Your task to perform on an android device: Go to network settings Image 0: 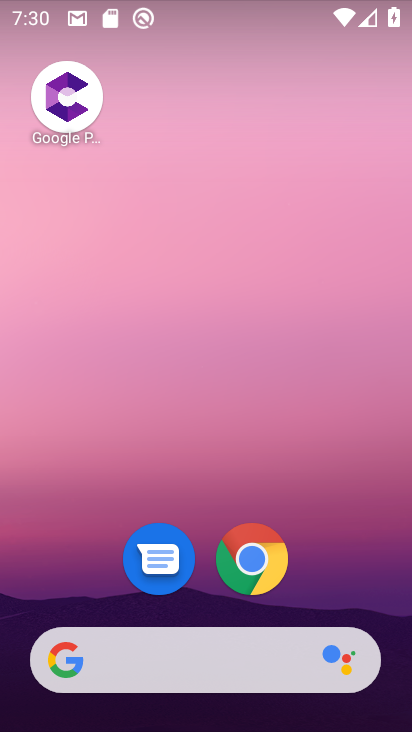
Step 0: drag from (379, 601) to (376, 248)
Your task to perform on an android device: Go to network settings Image 1: 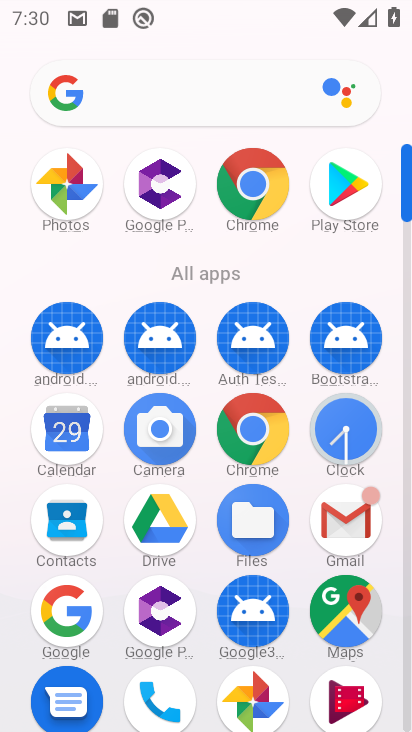
Step 1: drag from (395, 491) to (388, 221)
Your task to perform on an android device: Go to network settings Image 2: 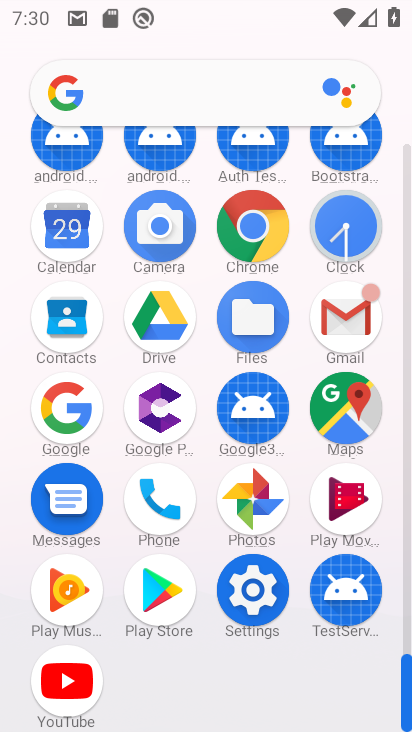
Step 2: click (260, 609)
Your task to perform on an android device: Go to network settings Image 3: 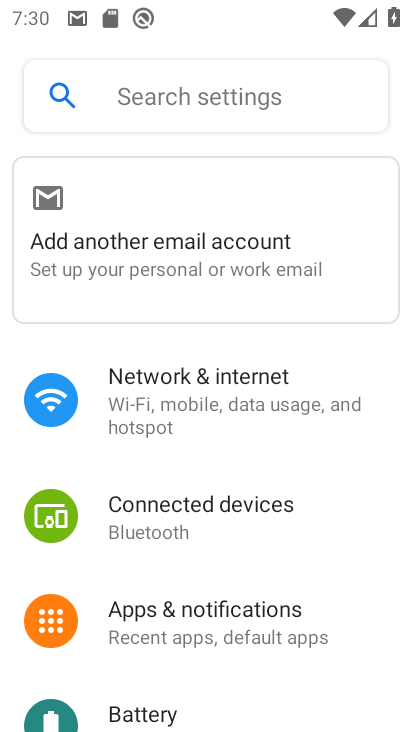
Step 3: drag from (376, 626) to (378, 502)
Your task to perform on an android device: Go to network settings Image 4: 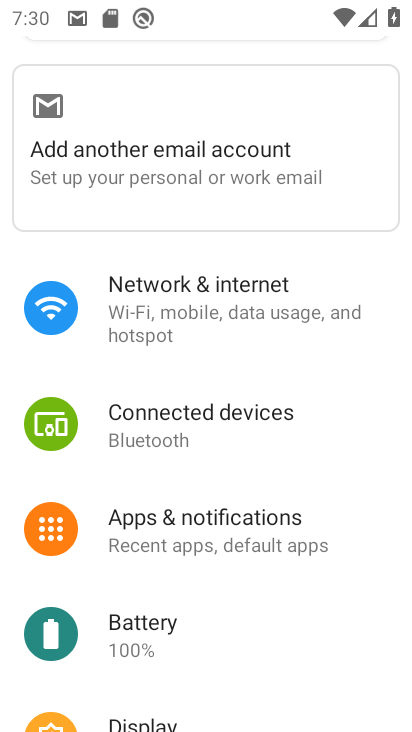
Step 4: drag from (374, 611) to (362, 495)
Your task to perform on an android device: Go to network settings Image 5: 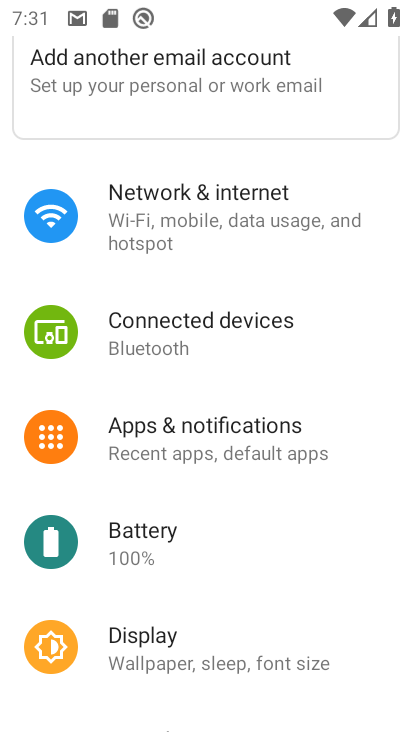
Step 5: drag from (378, 606) to (383, 496)
Your task to perform on an android device: Go to network settings Image 6: 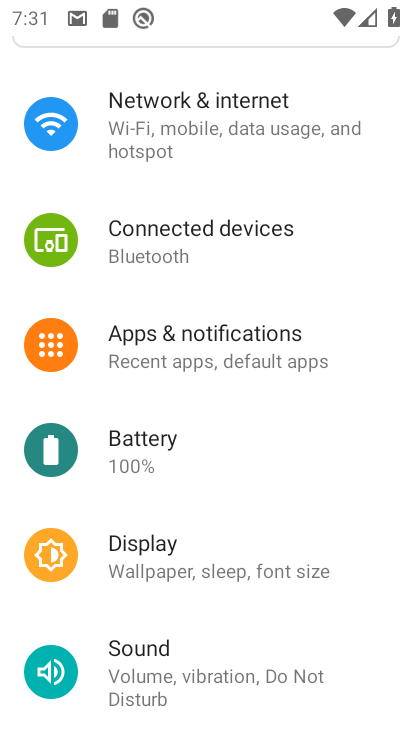
Step 6: drag from (373, 623) to (372, 534)
Your task to perform on an android device: Go to network settings Image 7: 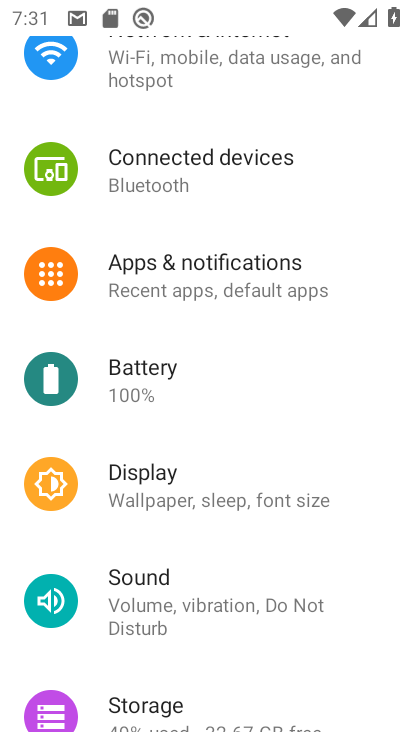
Step 7: drag from (362, 623) to (371, 515)
Your task to perform on an android device: Go to network settings Image 8: 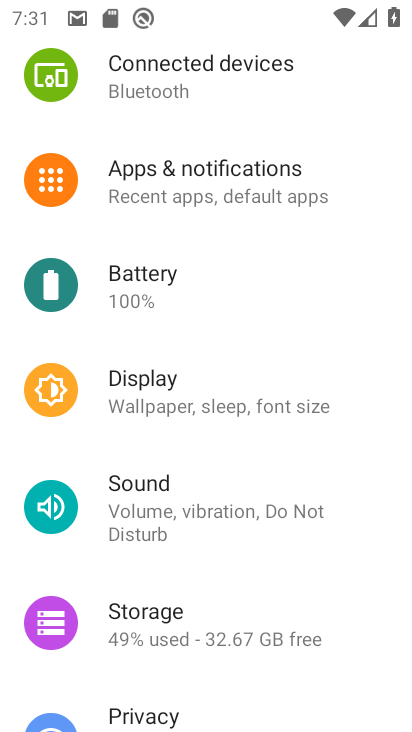
Step 8: drag from (378, 611) to (383, 510)
Your task to perform on an android device: Go to network settings Image 9: 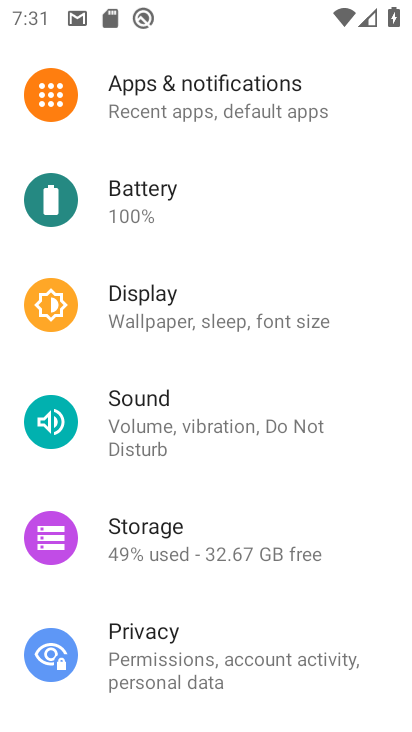
Step 9: drag from (374, 613) to (380, 503)
Your task to perform on an android device: Go to network settings Image 10: 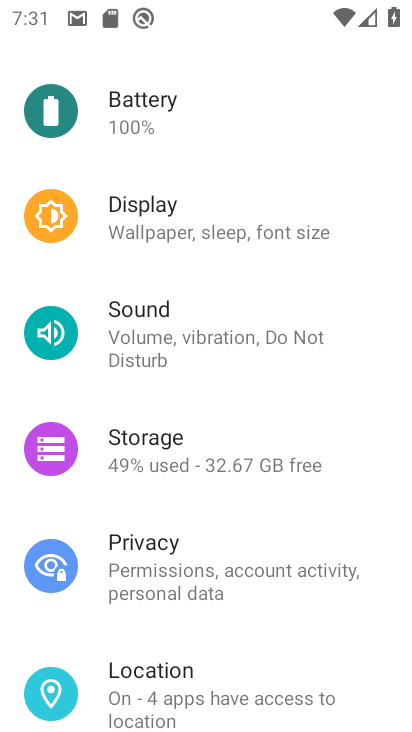
Step 10: drag from (381, 633) to (381, 510)
Your task to perform on an android device: Go to network settings Image 11: 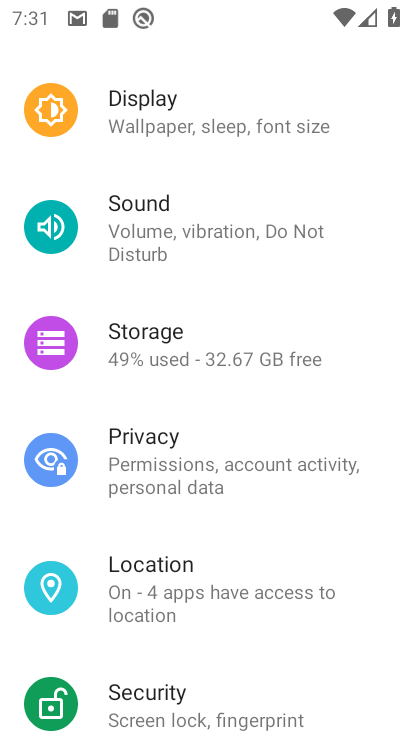
Step 11: drag from (384, 639) to (390, 472)
Your task to perform on an android device: Go to network settings Image 12: 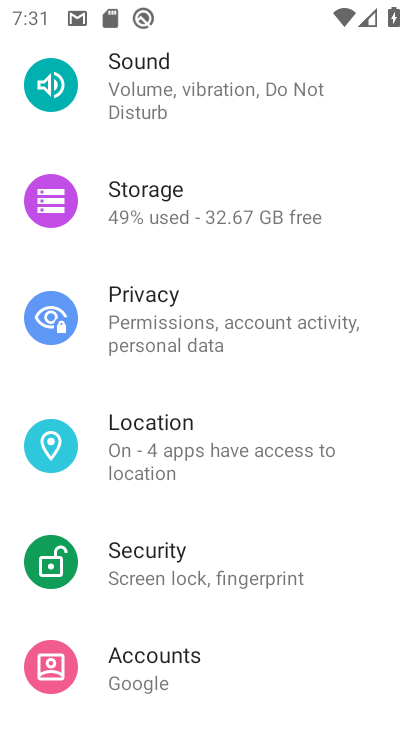
Step 12: drag from (386, 359) to (378, 442)
Your task to perform on an android device: Go to network settings Image 13: 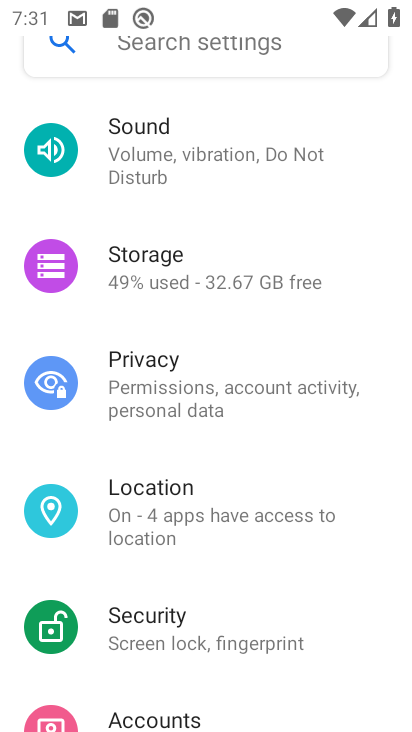
Step 13: drag from (377, 294) to (378, 389)
Your task to perform on an android device: Go to network settings Image 14: 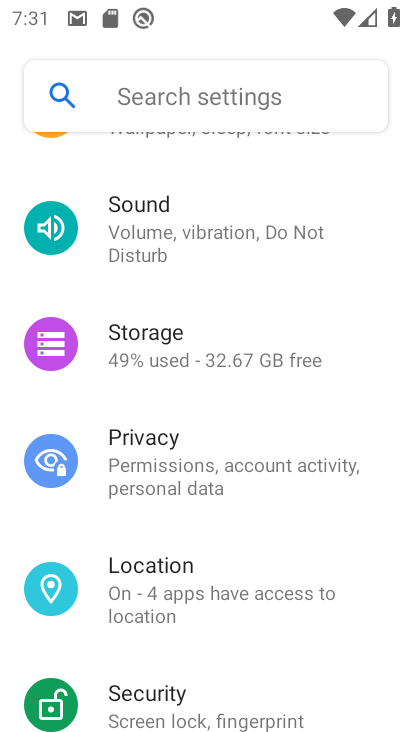
Step 14: drag from (368, 281) to (378, 362)
Your task to perform on an android device: Go to network settings Image 15: 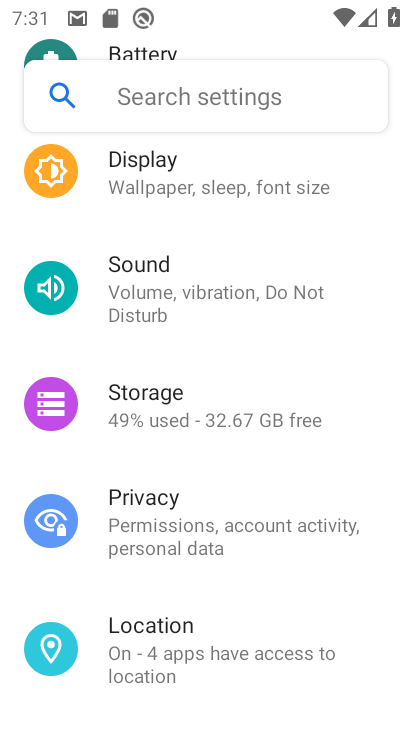
Step 15: drag from (381, 253) to (377, 338)
Your task to perform on an android device: Go to network settings Image 16: 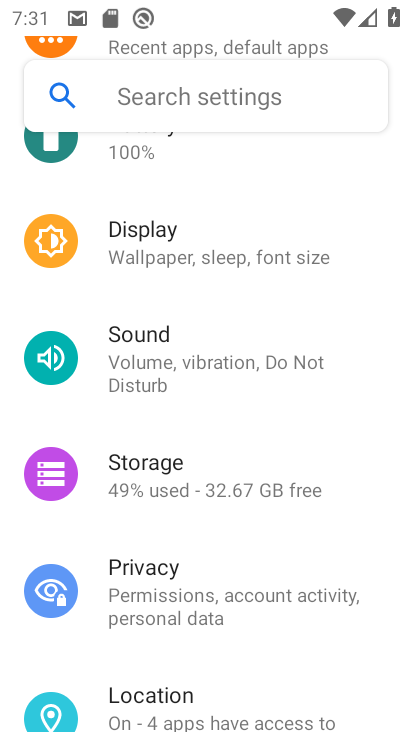
Step 16: drag from (372, 243) to (373, 328)
Your task to perform on an android device: Go to network settings Image 17: 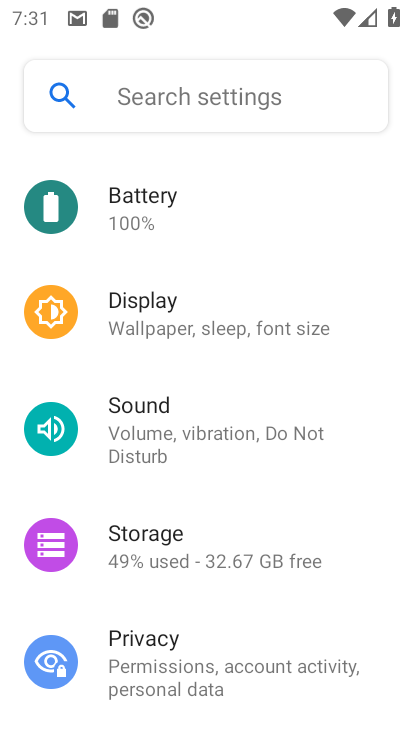
Step 17: drag from (378, 240) to (367, 344)
Your task to perform on an android device: Go to network settings Image 18: 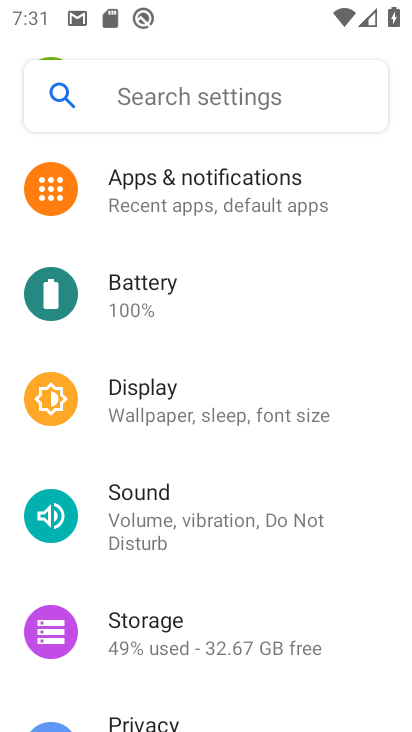
Step 18: drag from (371, 255) to (372, 339)
Your task to perform on an android device: Go to network settings Image 19: 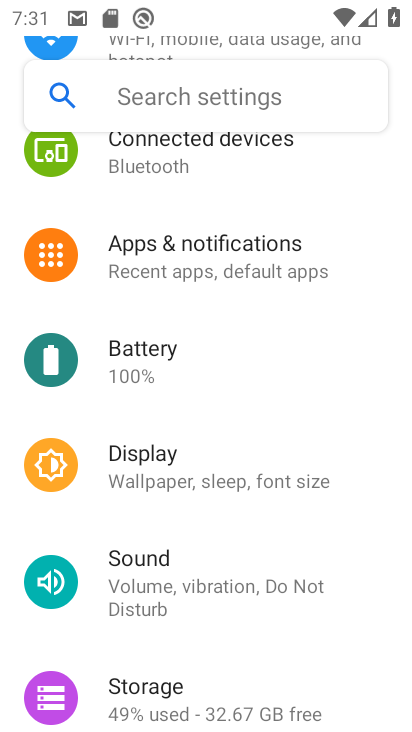
Step 19: drag from (374, 260) to (378, 384)
Your task to perform on an android device: Go to network settings Image 20: 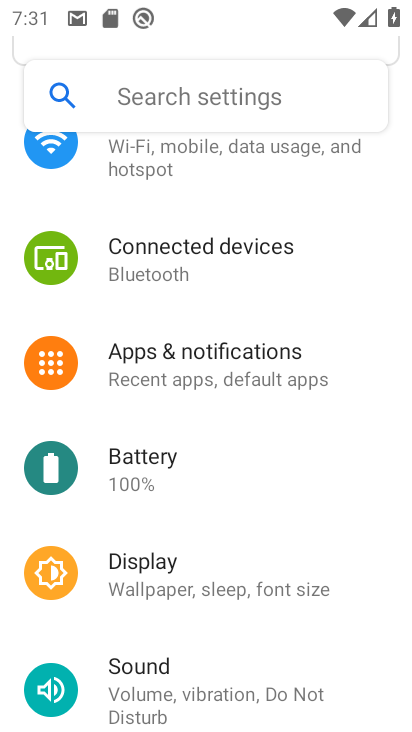
Step 20: drag from (384, 257) to (370, 349)
Your task to perform on an android device: Go to network settings Image 21: 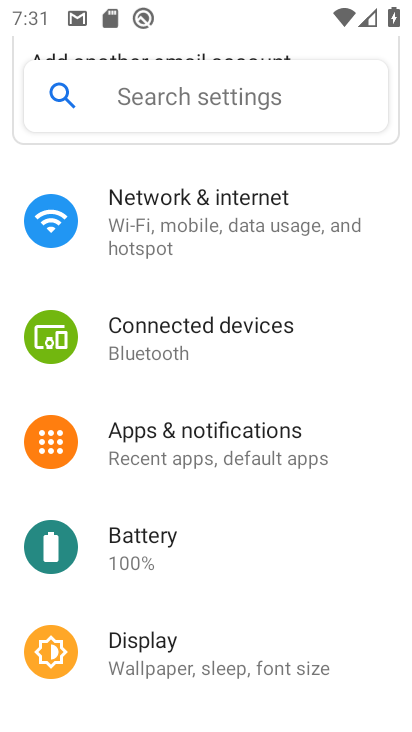
Step 21: drag from (383, 259) to (360, 484)
Your task to perform on an android device: Go to network settings Image 22: 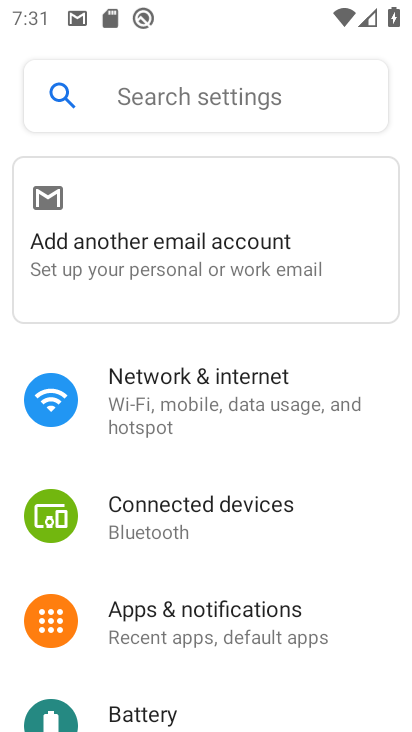
Step 22: click (284, 382)
Your task to perform on an android device: Go to network settings Image 23: 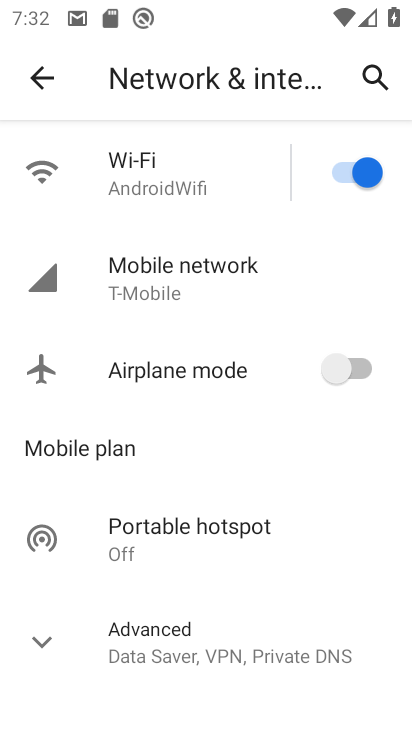
Step 23: click (163, 301)
Your task to perform on an android device: Go to network settings Image 24: 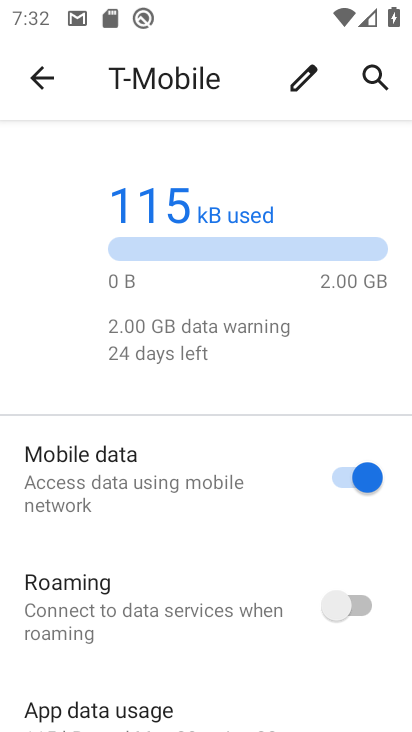
Step 24: drag from (216, 548) to (250, 296)
Your task to perform on an android device: Go to network settings Image 25: 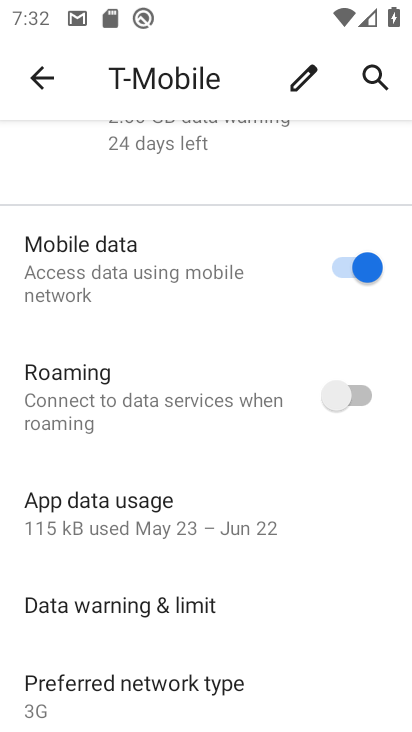
Step 25: drag from (266, 620) to (267, 351)
Your task to perform on an android device: Go to network settings Image 26: 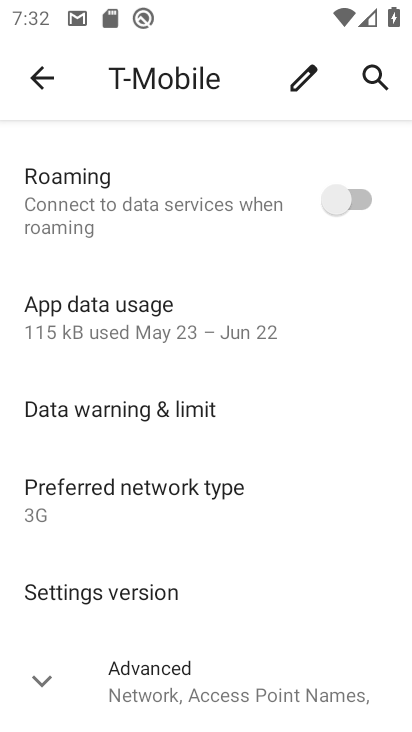
Step 26: click (250, 698)
Your task to perform on an android device: Go to network settings Image 27: 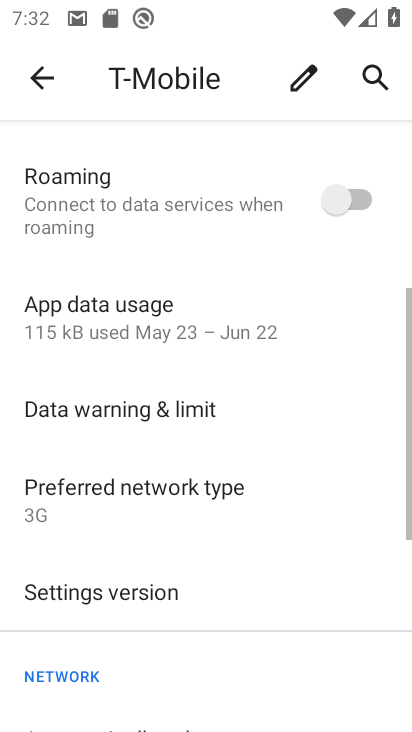
Step 27: task complete